Your task to perform on an android device: toggle show notifications on the lock screen Image 0: 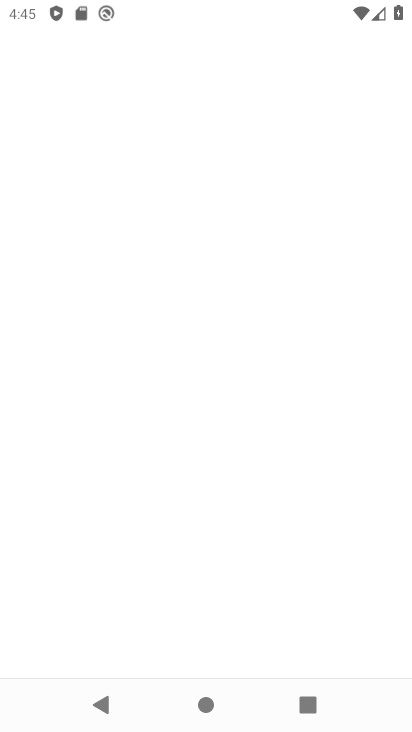
Step 0: press back button
Your task to perform on an android device: toggle show notifications on the lock screen Image 1: 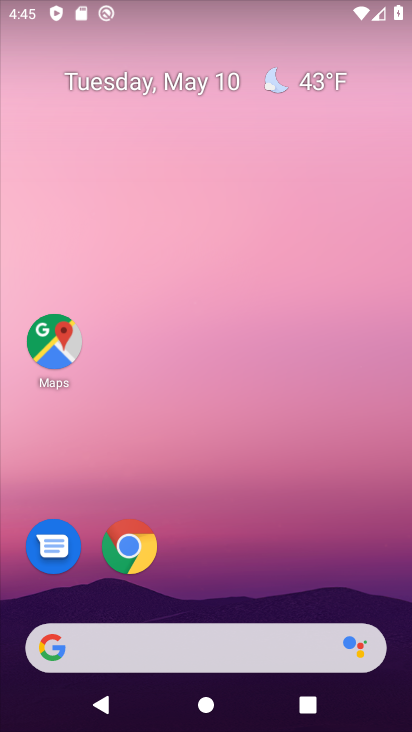
Step 1: drag from (332, 564) to (140, 0)
Your task to perform on an android device: toggle show notifications on the lock screen Image 2: 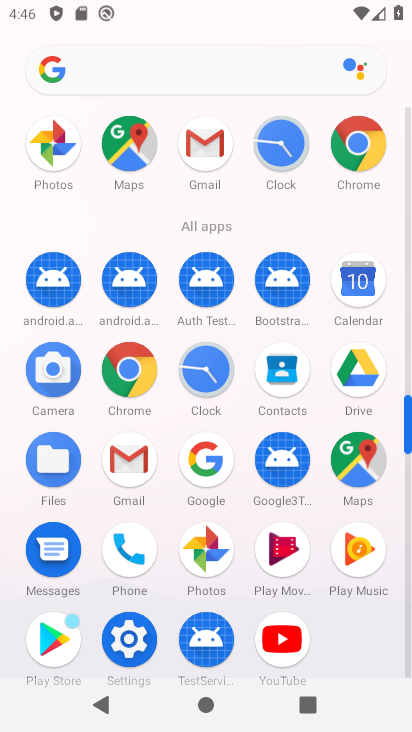
Step 2: click (126, 643)
Your task to perform on an android device: toggle show notifications on the lock screen Image 3: 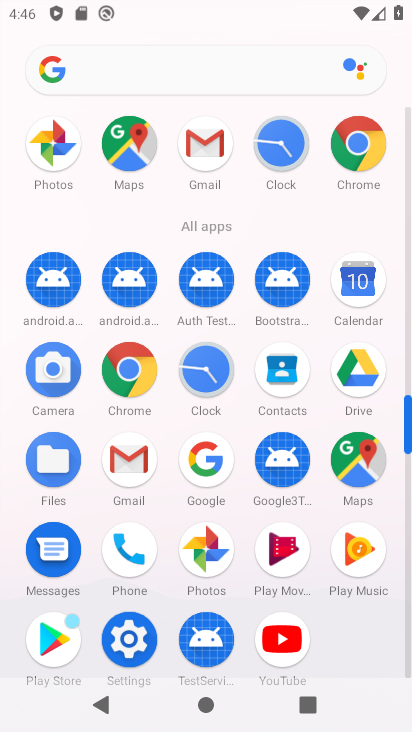
Step 3: click (126, 643)
Your task to perform on an android device: toggle show notifications on the lock screen Image 4: 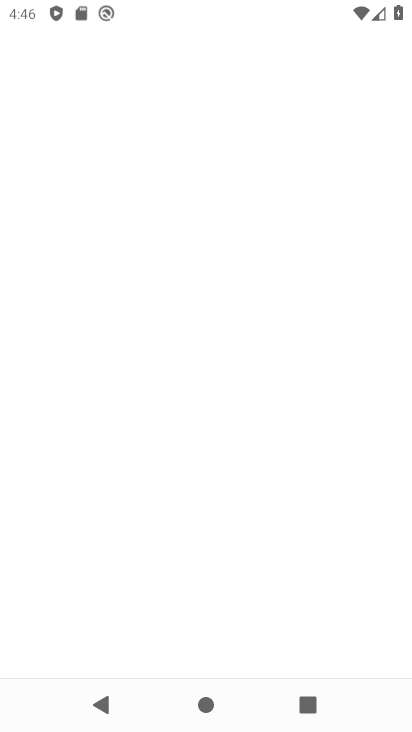
Step 4: click (125, 646)
Your task to perform on an android device: toggle show notifications on the lock screen Image 5: 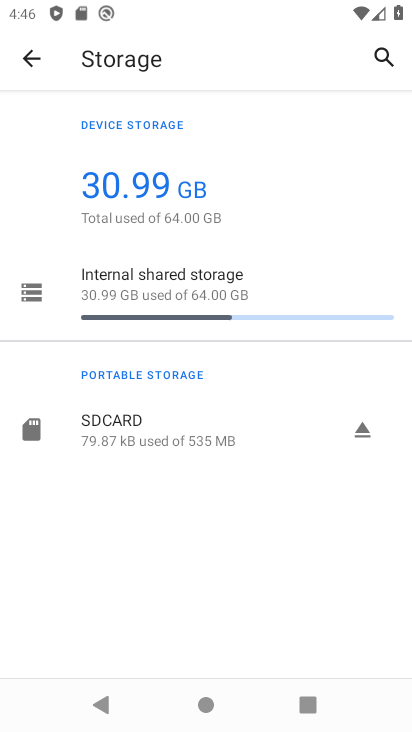
Step 5: click (19, 46)
Your task to perform on an android device: toggle show notifications on the lock screen Image 6: 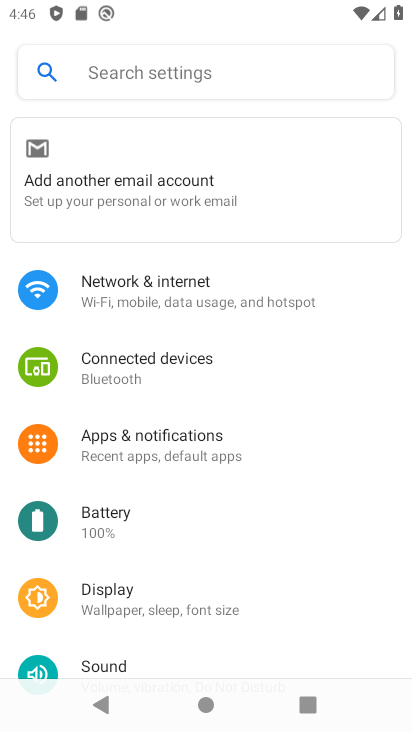
Step 6: click (145, 431)
Your task to perform on an android device: toggle show notifications on the lock screen Image 7: 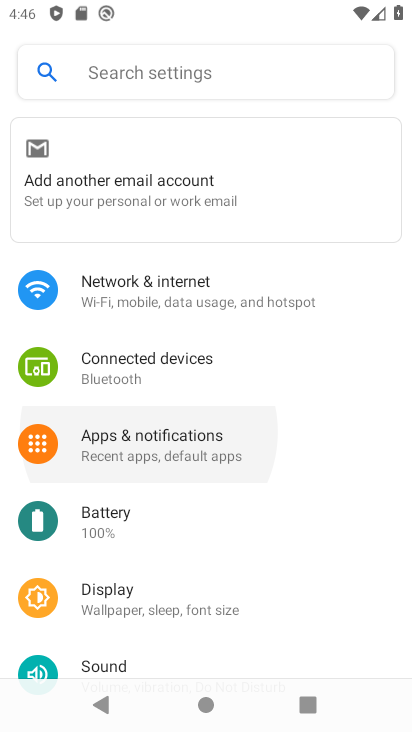
Step 7: click (145, 435)
Your task to perform on an android device: toggle show notifications on the lock screen Image 8: 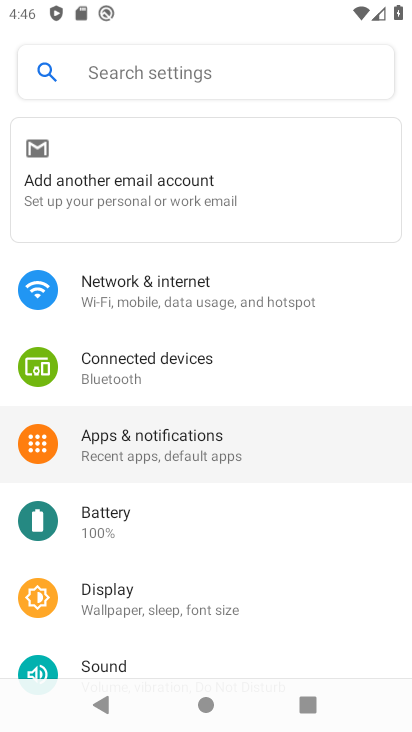
Step 8: click (148, 452)
Your task to perform on an android device: toggle show notifications on the lock screen Image 9: 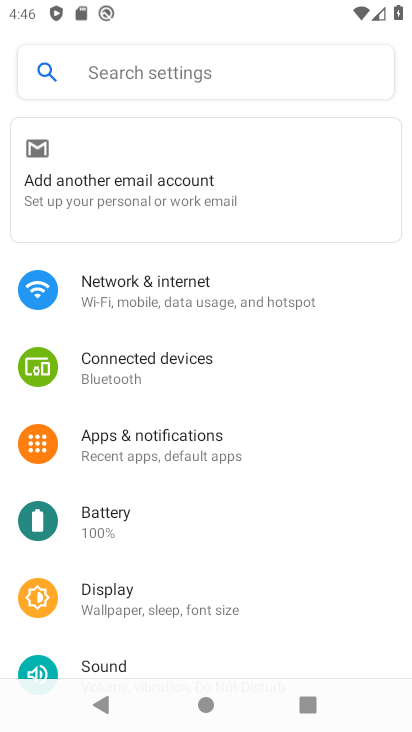
Step 9: click (149, 452)
Your task to perform on an android device: toggle show notifications on the lock screen Image 10: 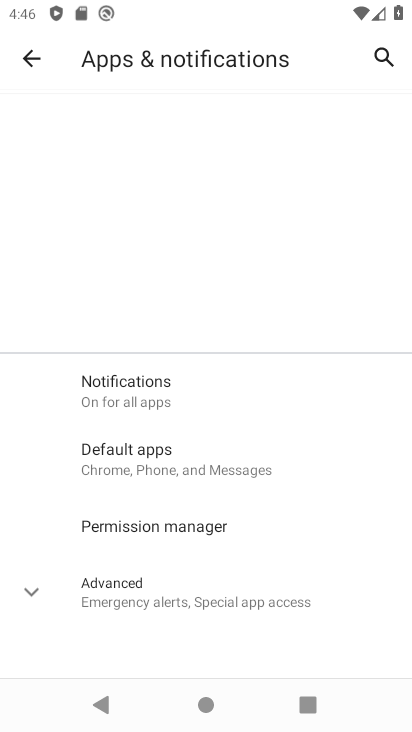
Step 10: click (133, 451)
Your task to perform on an android device: toggle show notifications on the lock screen Image 11: 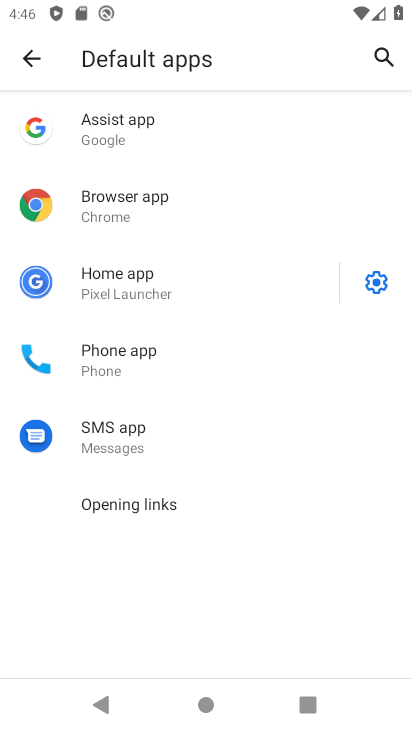
Step 11: click (27, 60)
Your task to perform on an android device: toggle show notifications on the lock screen Image 12: 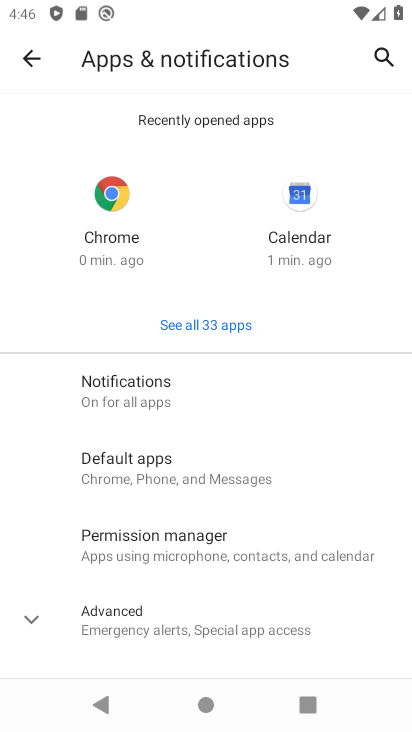
Step 12: click (125, 388)
Your task to perform on an android device: toggle show notifications on the lock screen Image 13: 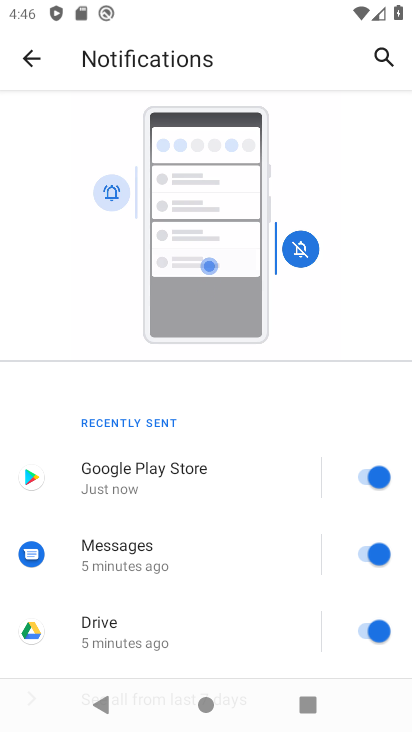
Step 13: drag from (121, 365) to (85, 180)
Your task to perform on an android device: toggle show notifications on the lock screen Image 14: 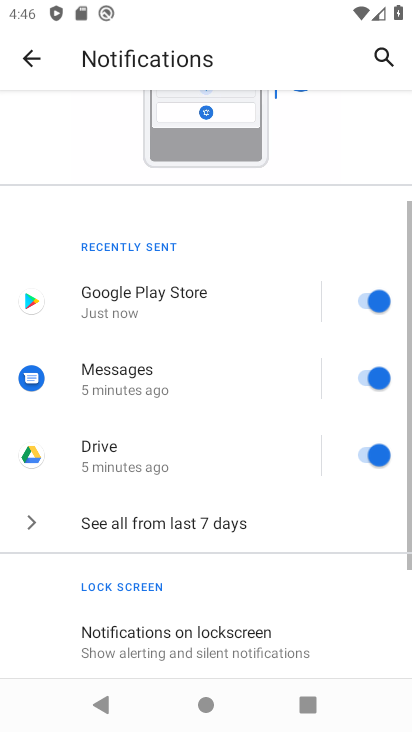
Step 14: drag from (161, 408) to (156, 123)
Your task to perform on an android device: toggle show notifications on the lock screen Image 15: 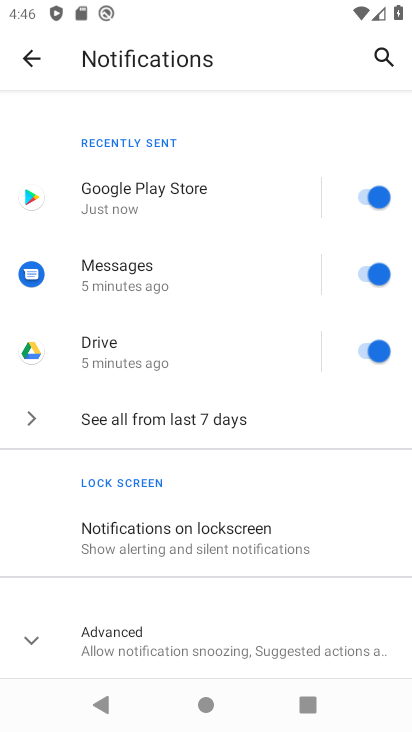
Step 15: click (160, 516)
Your task to perform on an android device: toggle show notifications on the lock screen Image 16: 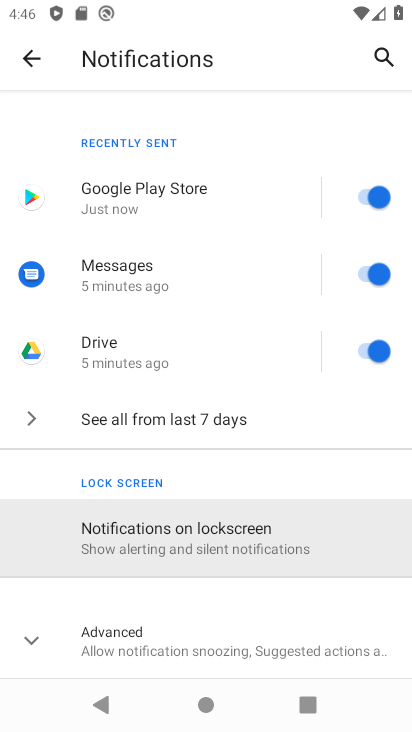
Step 16: click (175, 545)
Your task to perform on an android device: toggle show notifications on the lock screen Image 17: 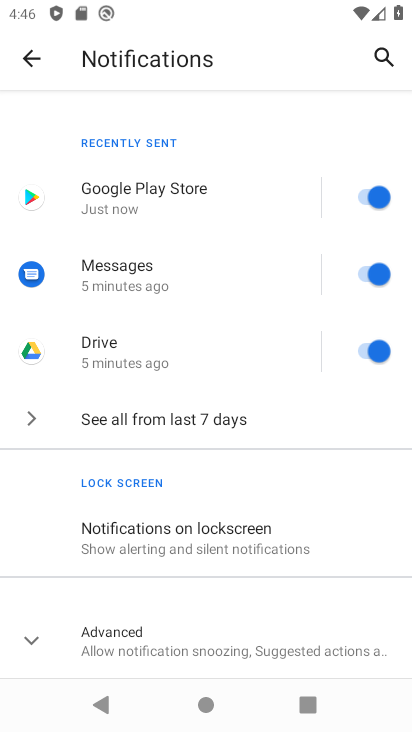
Step 17: click (140, 520)
Your task to perform on an android device: toggle show notifications on the lock screen Image 18: 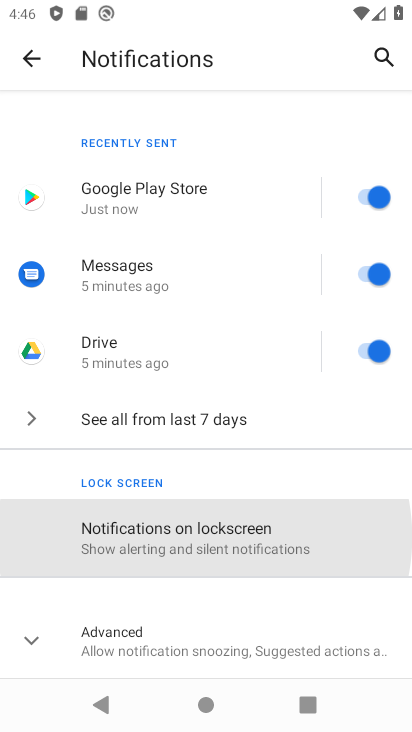
Step 18: click (139, 533)
Your task to perform on an android device: toggle show notifications on the lock screen Image 19: 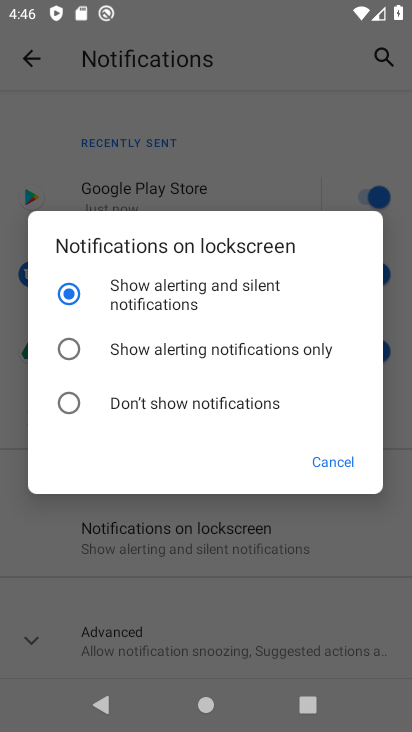
Step 19: click (66, 340)
Your task to perform on an android device: toggle show notifications on the lock screen Image 20: 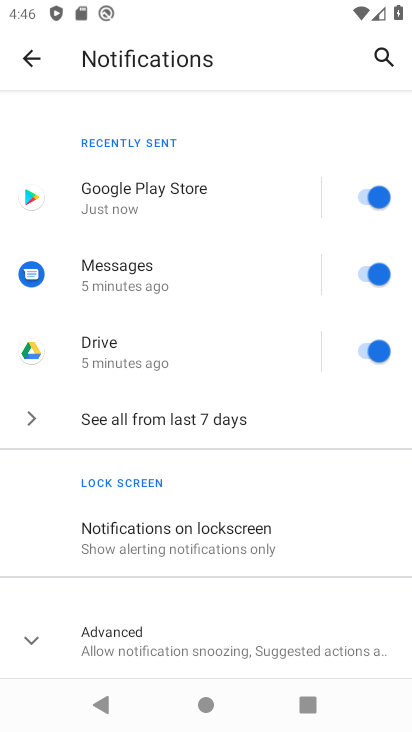
Step 20: task complete